Your task to perform on an android device: Open calendar and show me the second week of next month Image 0: 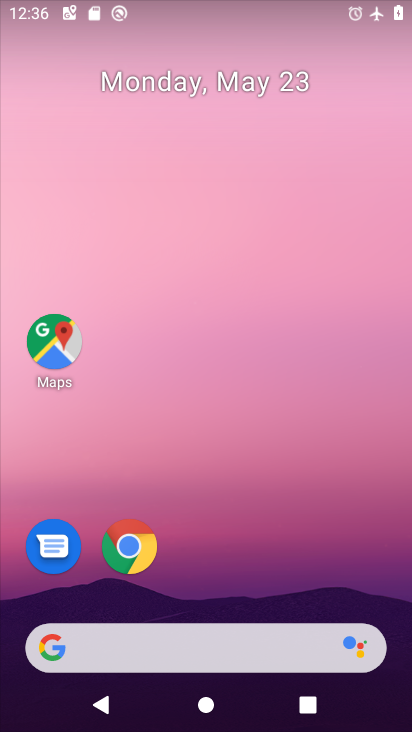
Step 0: drag from (209, 653) to (227, 159)
Your task to perform on an android device: Open calendar and show me the second week of next month Image 1: 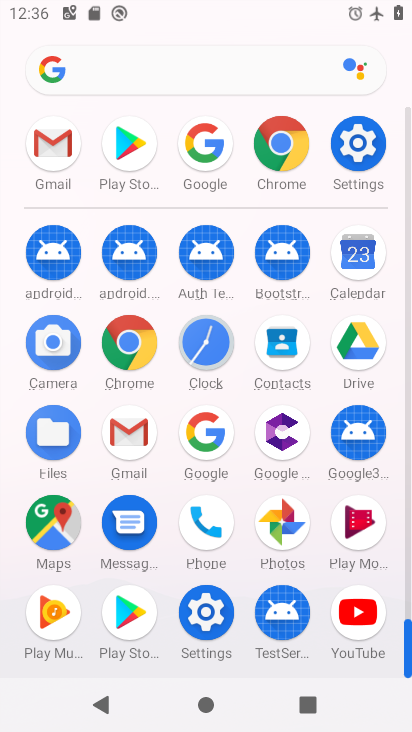
Step 1: click (361, 271)
Your task to perform on an android device: Open calendar and show me the second week of next month Image 2: 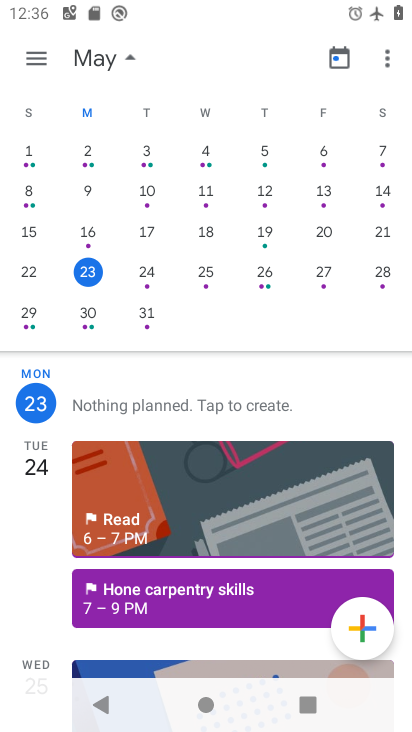
Step 2: drag from (344, 238) to (8, 279)
Your task to perform on an android device: Open calendar and show me the second week of next month Image 3: 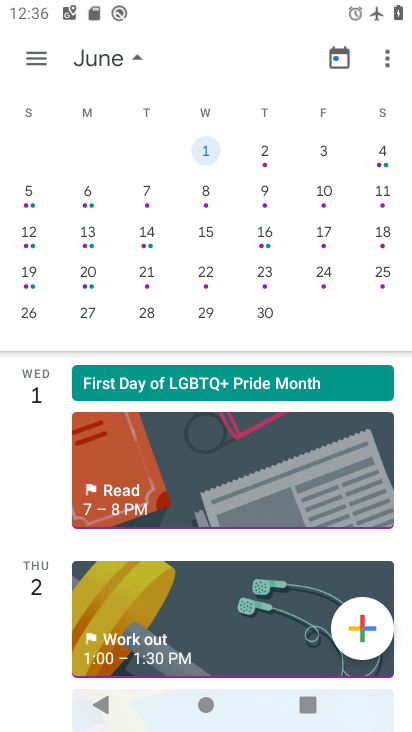
Step 3: click (36, 247)
Your task to perform on an android device: Open calendar and show me the second week of next month Image 4: 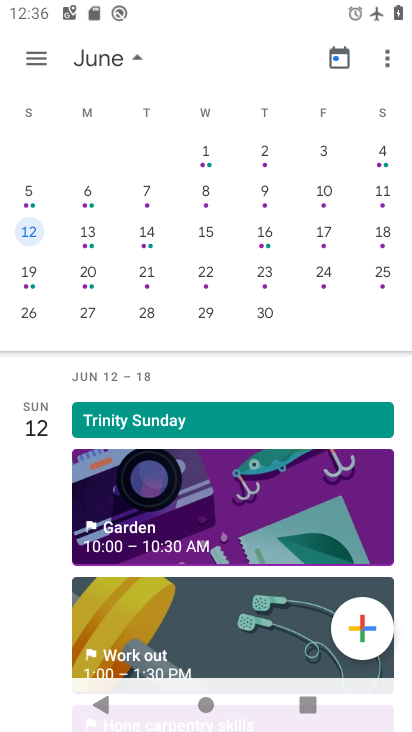
Step 4: task complete